Your task to perform on an android device: turn on the 24-hour format for clock Image 0: 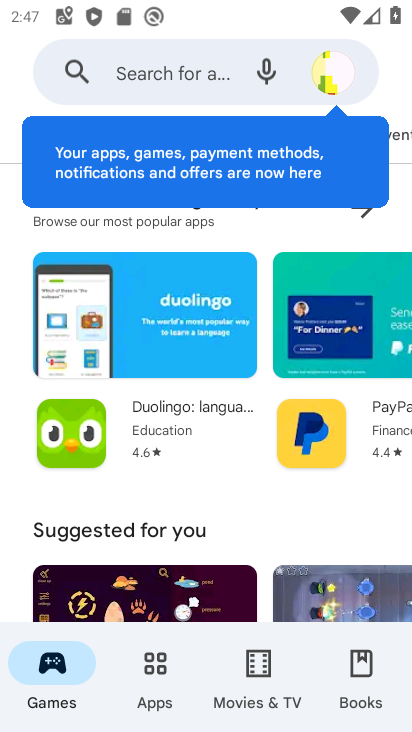
Step 0: press home button
Your task to perform on an android device: turn on the 24-hour format for clock Image 1: 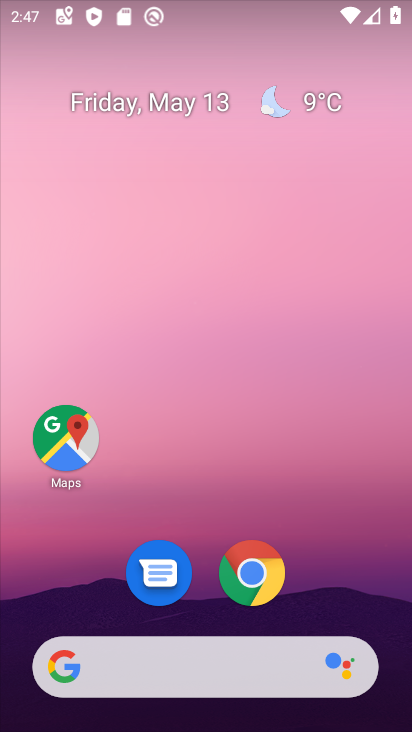
Step 1: drag from (324, 576) to (286, 117)
Your task to perform on an android device: turn on the 24-hour format for clock Image 2: 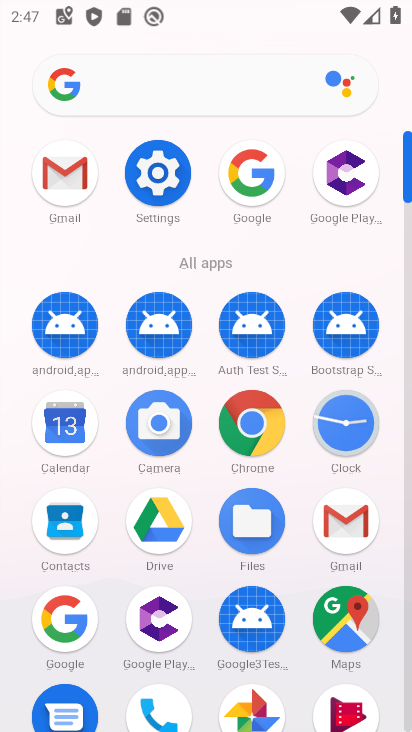
Step 2: click (343, 423)
Your task to perform on an android device: turn on the 24-hour format for clock Image 3: 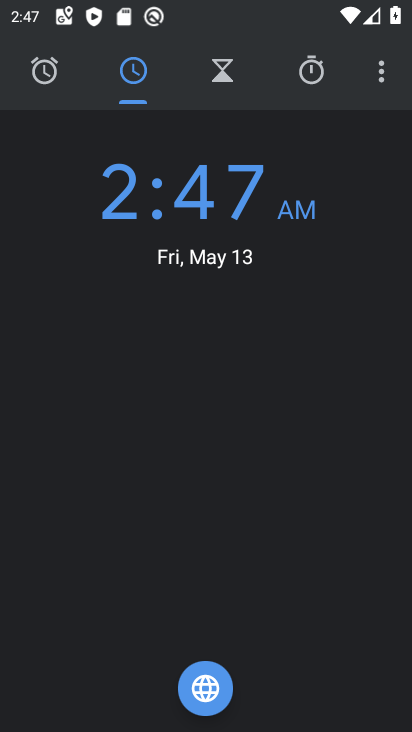
Step 3: click (381, 68)
Your task to perform on an android device: turn on the 24-hour format for clock Image 4: 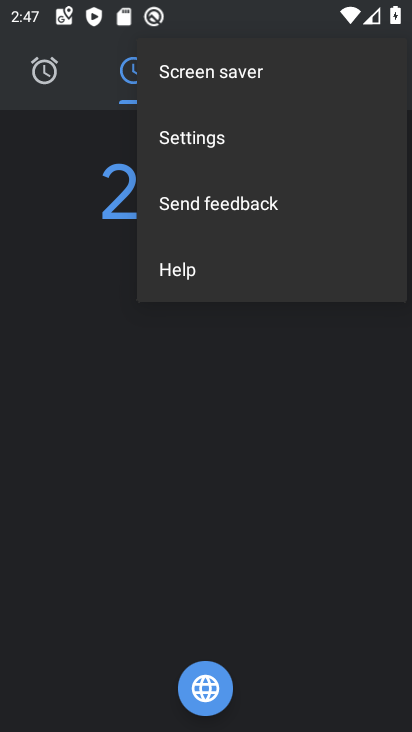
Step 4: click (212, 135)
Your task to perform on an android device: turn on the 24-hour format for clock Image 5: 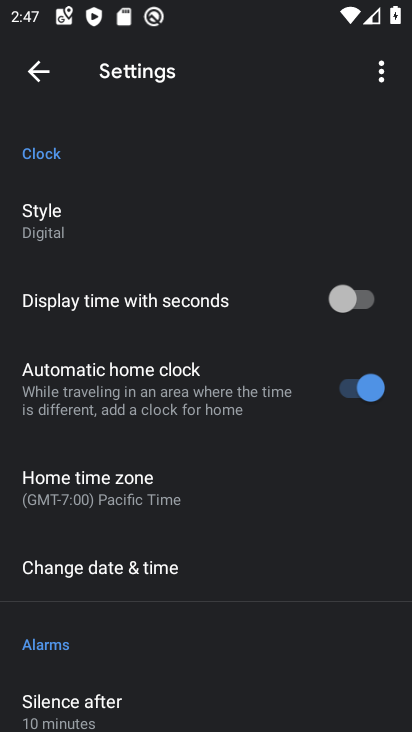
Step 5: drag from (256, 514) to (250, 401)
Your task to perform on an android device: turn on the 24-hour format for clock Image 6: 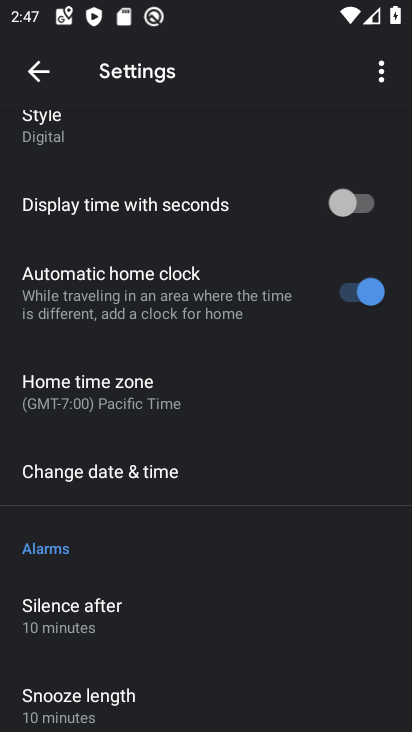
Step 6: click (162, 471)
Your task to perform on an android device: turn on the 24-hour format for clock Image 7: 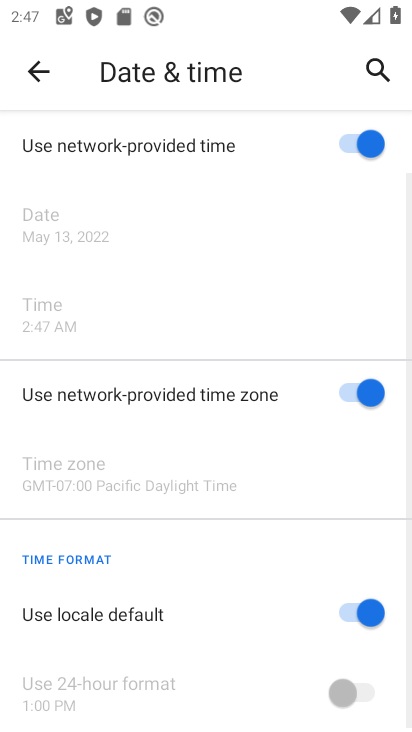
Step 7: drag from (229, 583) to (278, 367)
Your task to perform on an android device: turn on the 24-hour format for clock Image 8: 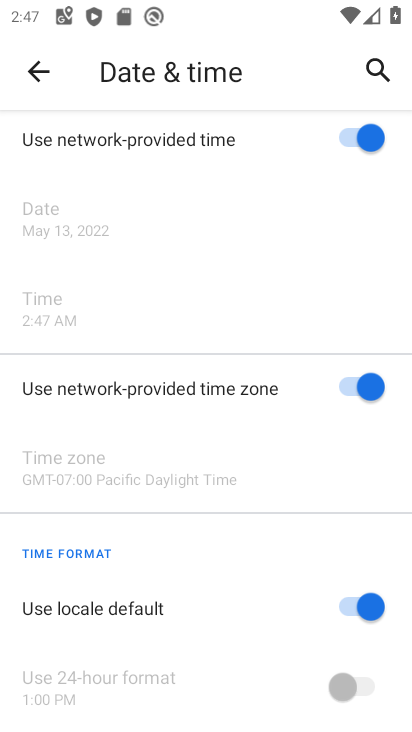
Step 8: click (365, 613)
Your task to perform on an android device: turn on the 24-hour format for clock Image 9: 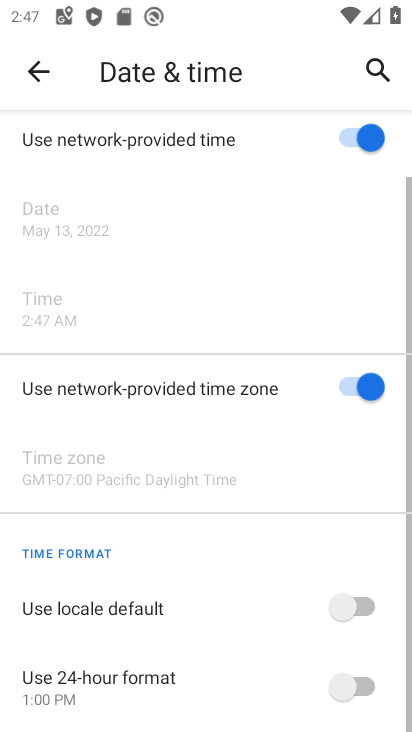
Step 9: click (341, 689)
Your task to perform on an android device: turn on the 24-hour format for clock Image 10: 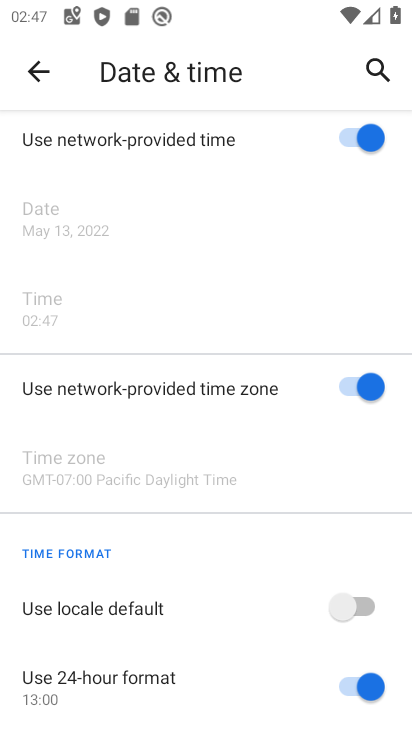
Step 10: task complete